Your task to perform on an android device: open wifi settings Image 0: 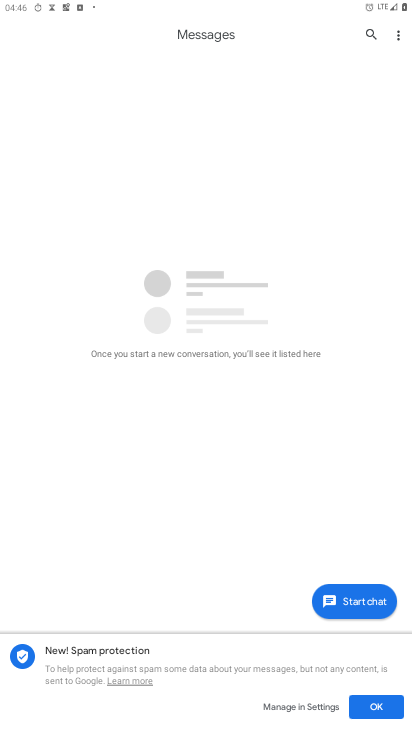
Step 0: press home button
Your task to perform on an android device: open wifi settings Image 1: 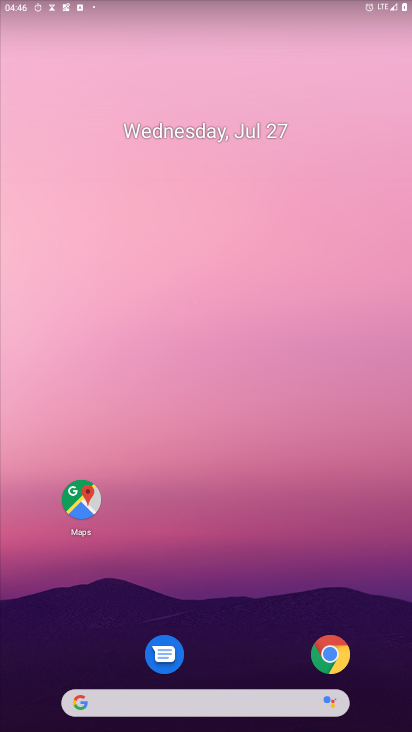
Step 1: drag from (229, 674) to (279, 48)
Your task to perform on an android device: open wifi settings Image 2: 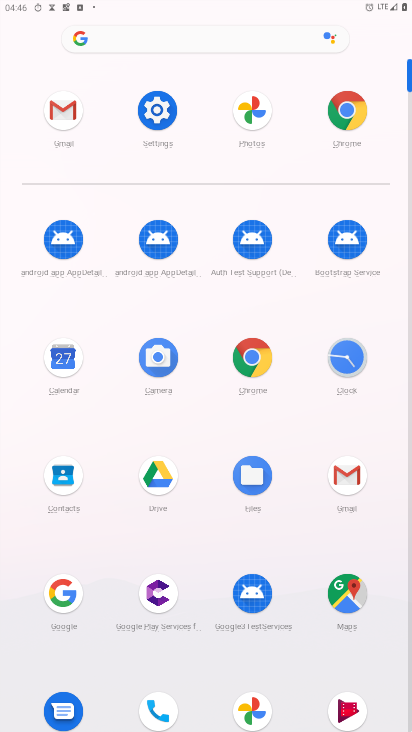
Step 2: click (152, 121)
Your task to perform on an android device: open wifi settings Image 3: 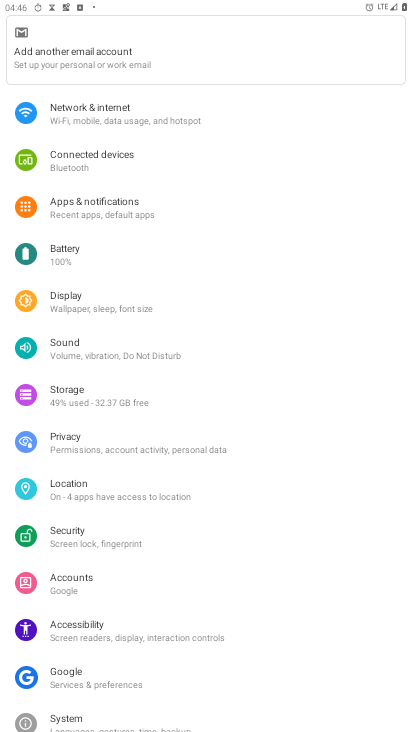
Step 3: click (123, 123)
Your task to perform on an android device: open wifi settings Image 4: 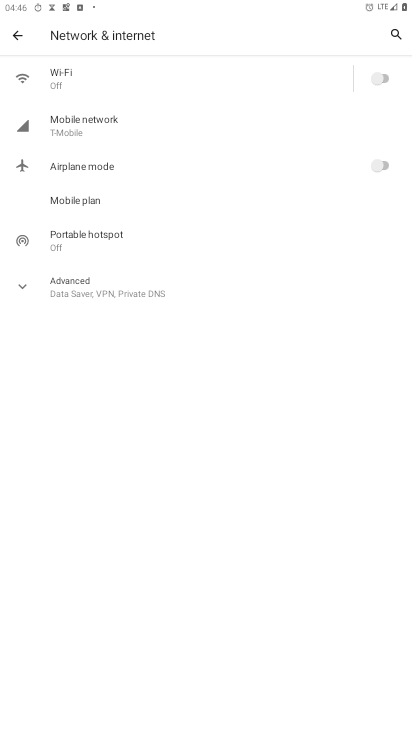
Step 4: click (76, 75)
Your task to perform on an android device: open wifi settings Image 5: 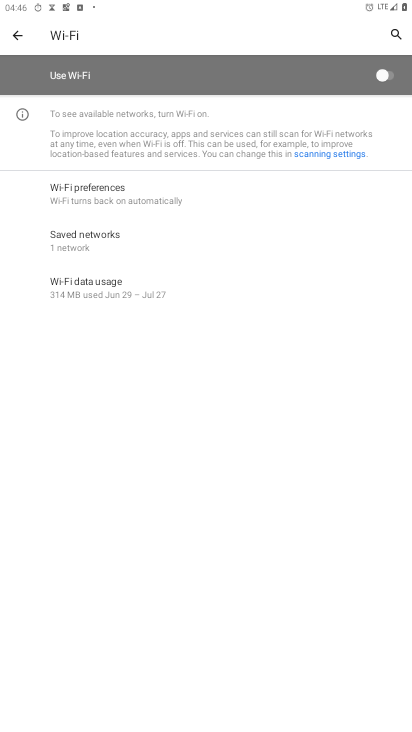
Step 5: task complete